Your task to perform on an android device: Check the weather Image 0: 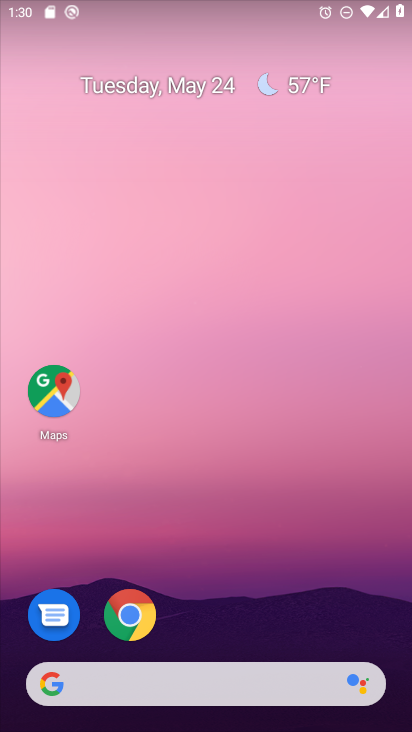
Step 0: drag from (218, 641) to (169, 277)
Your task to perform on an android device: Check the weather Image 1: 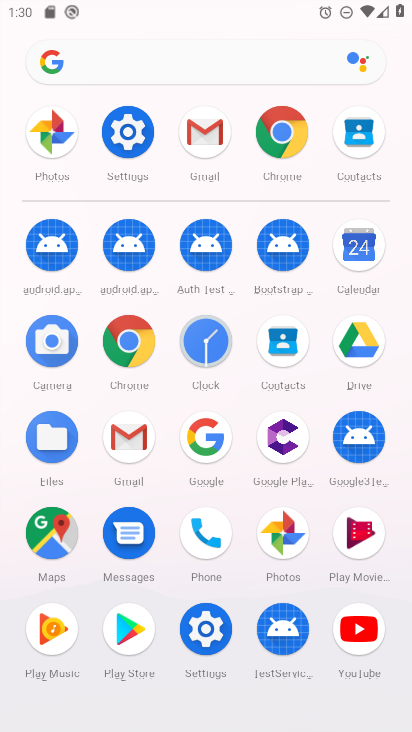
Step 1: click (192, 447)
Your task to perform on an android device: Check the weather Image 2: 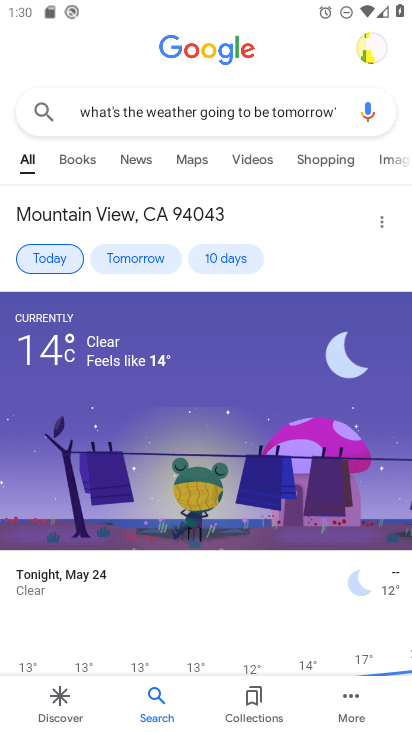
Step 2: task complete